Your task to perform on an android device: Go to Android settings Image 0: 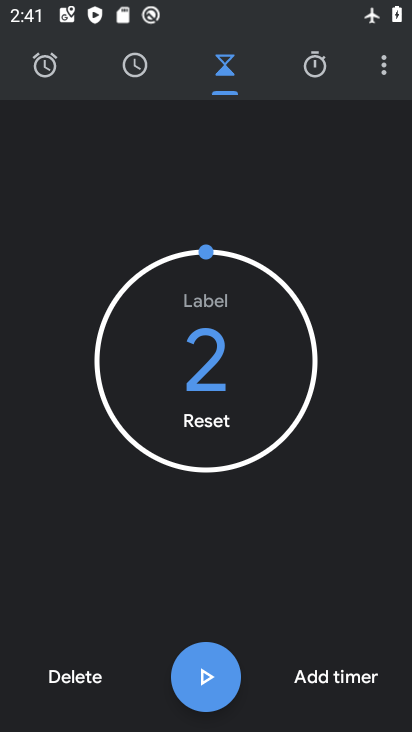
Step 0: press home button
Your task to perform on an android device: Go to Android settings Image 1: 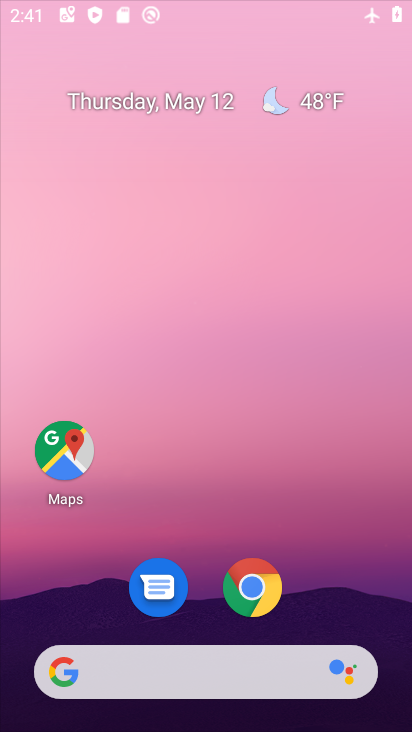
Step 1: drag from (252, 652) to (279, 91)
Your task to perform on an android device: Go to Android settings Image 2: 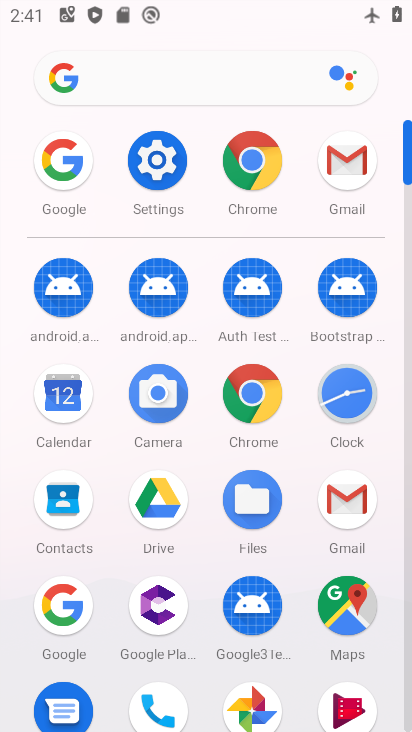
Step 2: click (178, 182)
Your task to perform on an android device: Go to Android settings Image 3: 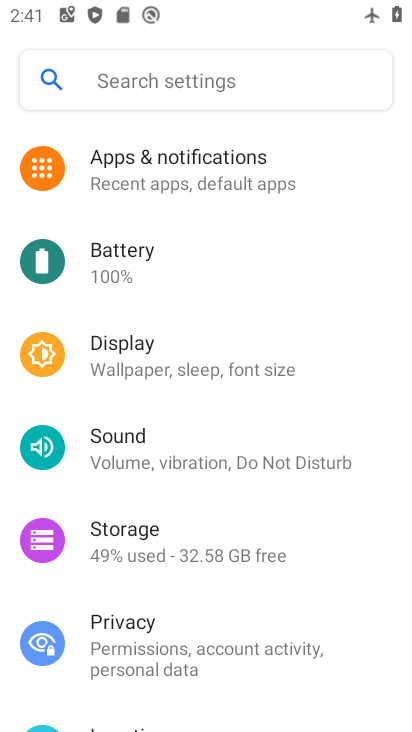
Step 3: drag from (152, 469) to (239, 0)
Your task to perform on an android device: Go to Android settings Image 4: 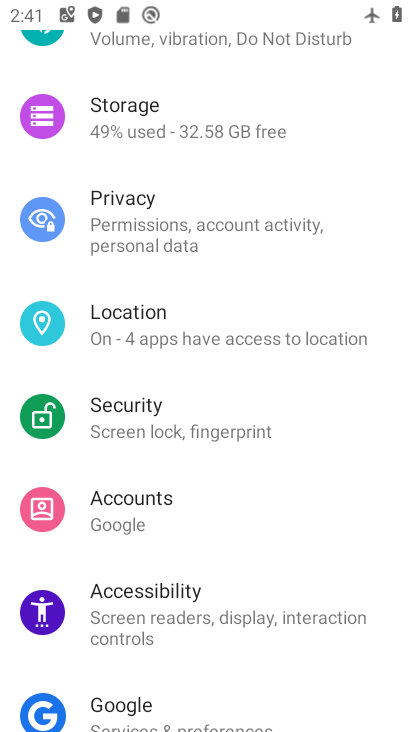
Step 4: drag from (193, 602) to (268, 124)
Your task to perform on an android device: Go to Android settings Image 5: 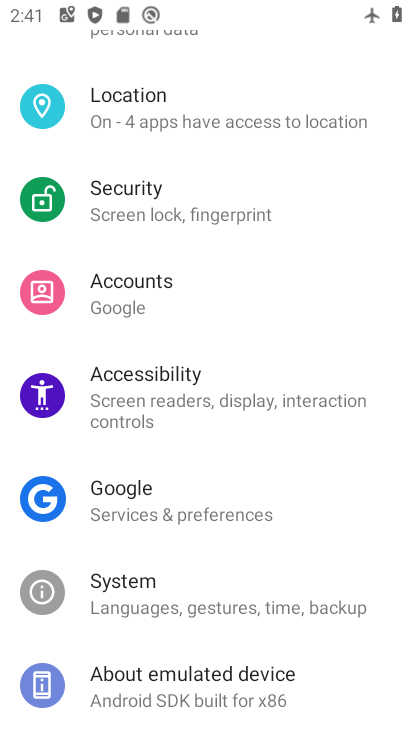
Step 5: drag from (217, 503) to (282, 2)
Your task to perform on an android device: Go to Android settings Image 6: 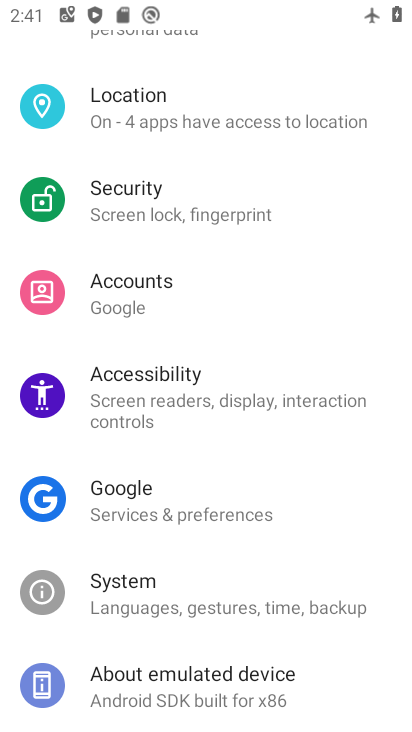
Step 6: click (222, 682)
Your task to perform on an android device: Go to Android settings Image 7: 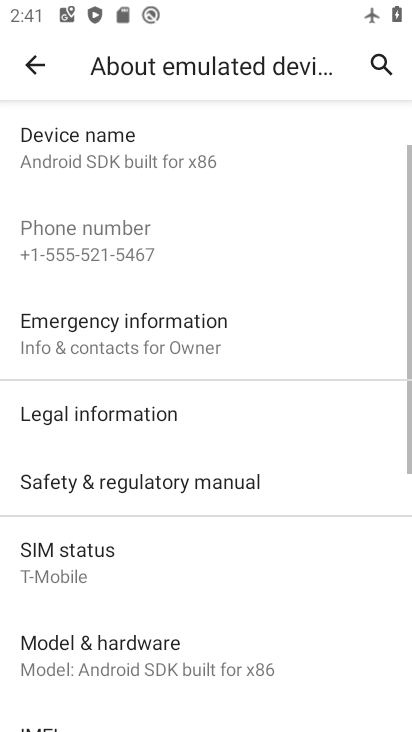
Step 7: drag from (235, 543) to (257, 385)
Your task to perform on an android device: Go to Android settings Image 8: 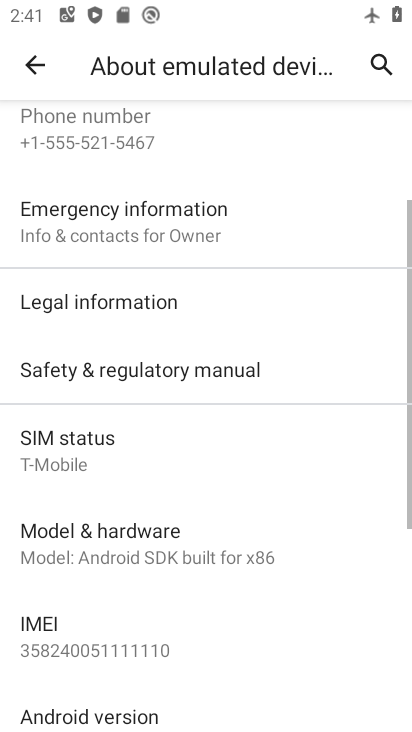
Step 8: drag from (177, 574) to (218, 234)
Your task to perform on an android device: Go to Android settings Image 9: 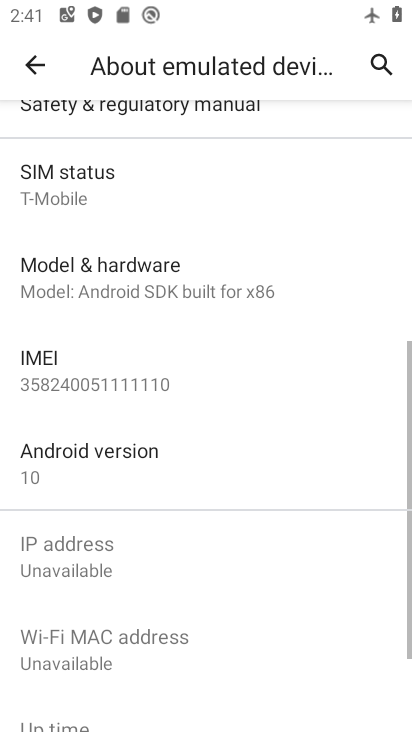
Step 9: click (171, 461)
Your task to perform on an android device: Go to Android settings Image 10: 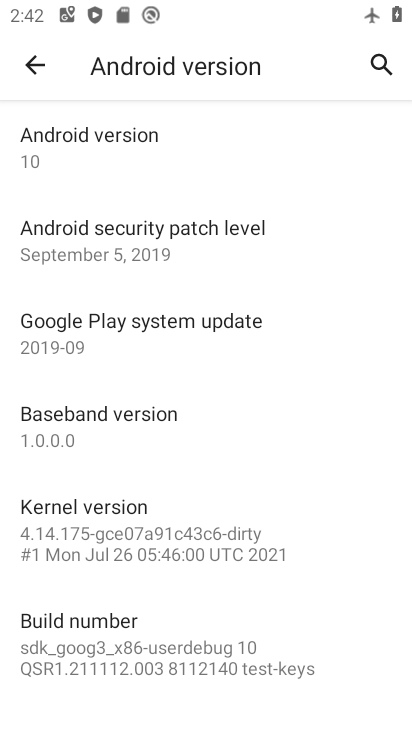
Step 10: task complete